Your task to perform on an android device: turn on the 24-hour format for clock Image 0: 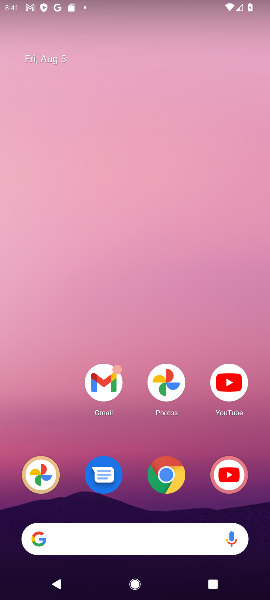
Step 0: drag from (139, 448) to (136, 93)
Your task to perform on an android device: turn on the 24-hour format for clock Image 1: 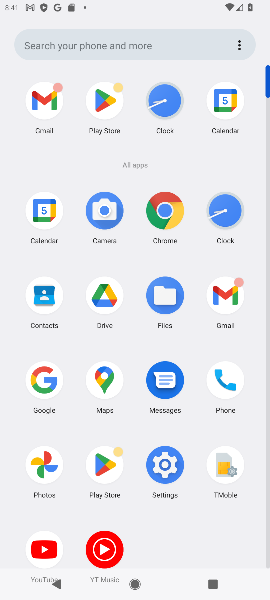
Step 1: click (162, 110)
Your task to perform on an android device: turn on the 24-hour format for clock Image 2: 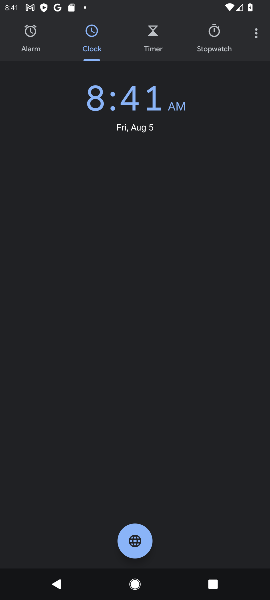
Step 2: click (255, 29)
Your task to perform on an android device: turn on the 24-hour format for clock Image 3: 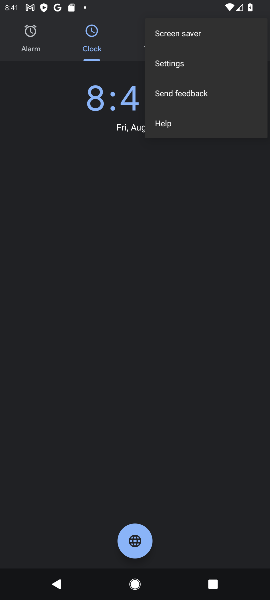
Step 3: click (161, 69)
Your task to perform on an android device: turn on the 24-hour format for clock Image 4: 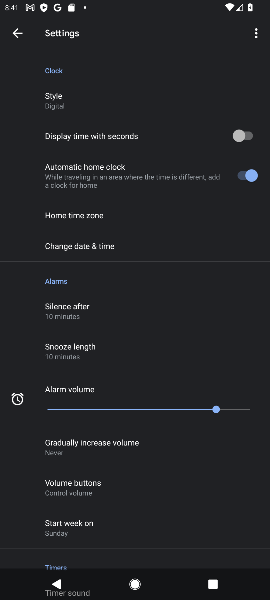
Step 4: drag from (237, 488) to (199, 55)
Your task to perform on an android device: turn on the 24-hour format for clock Image 5: 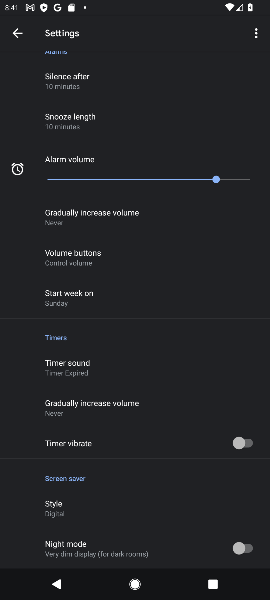
Step 5: drag from (190, 217) to (236, 584)
Your task to perform on an android device: turn on the 24-hour format for clock Image 6: 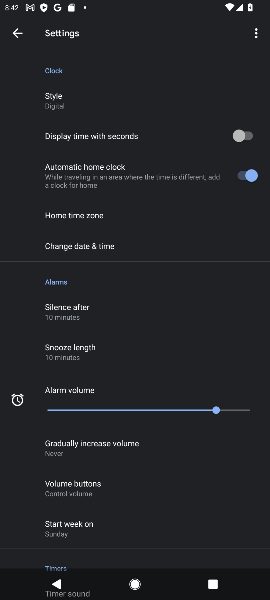
Step 6: click (125, 248)
Your task to perform on an android device: turn on the 24-hour format for clock Image 7: 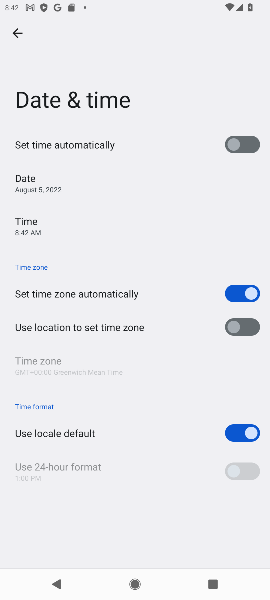
Step 7: click (246, 425)
Your task to perform on an android device: turn on the 24-hour format for clock Image 8: 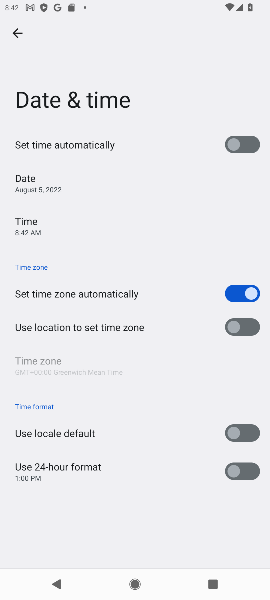
Step 8: click (246, 473)
Your task to perform on an android device: turn on the 24-hour format for clock Image 9: 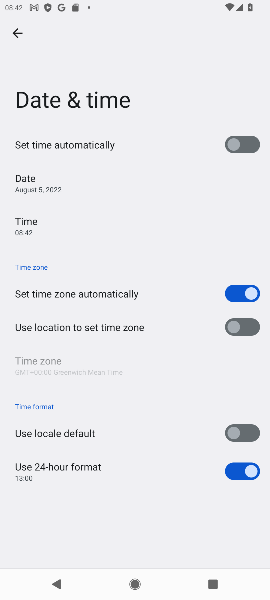
Step 9: task complete